Your task to perform on an android device: empty trash in the gmail app Image 0: 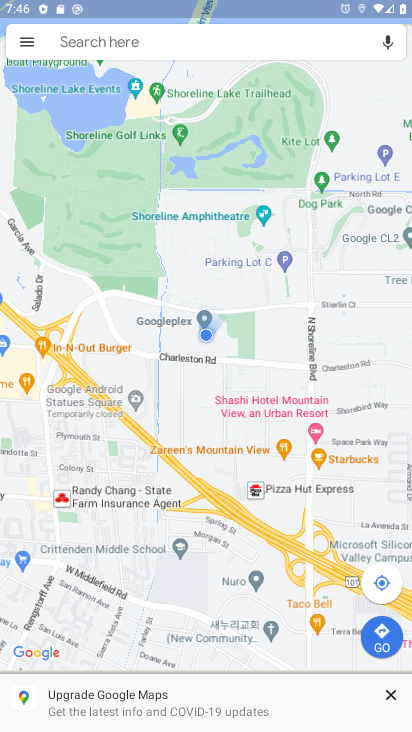
Step 0: press home button
Your task to perform on an android device: empty trash in the gmail app Image 1: 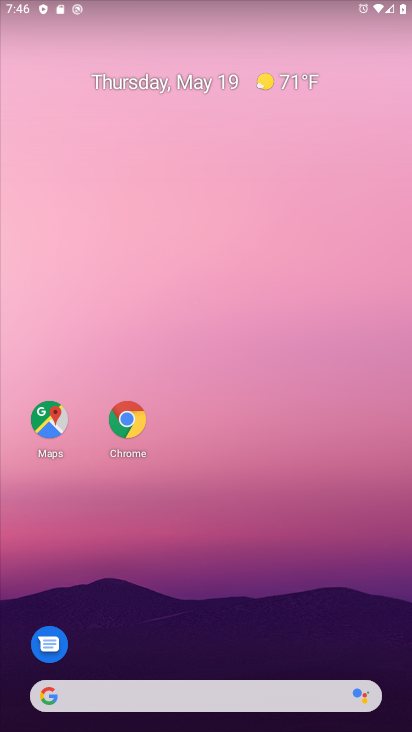
Step 1: drag from (115, 666) to (176, 321)
Your task to perform on an android device: empty trash in the gmail app Image 2: 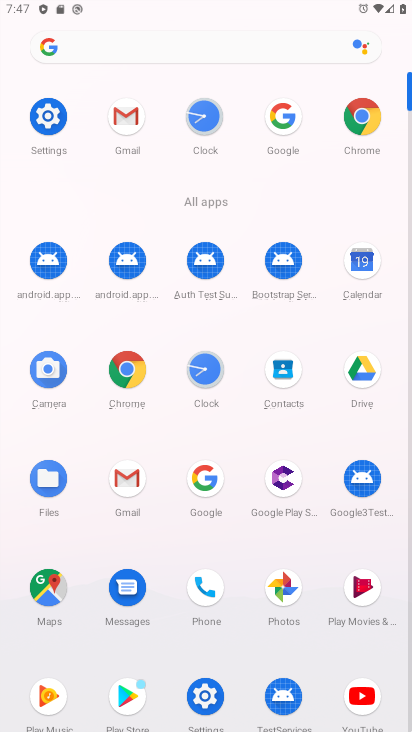
Step 2: click (125, 472)
Your task to perform on an android device: empty trash in the gmail app Image 3: 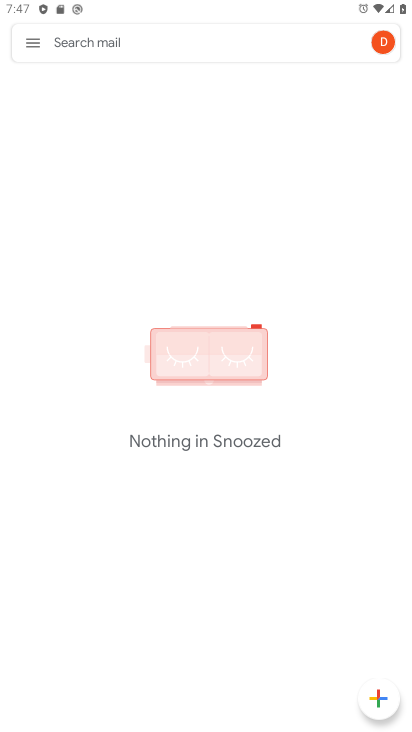
Step 3: click (27, 60)
Your task to perform on an android device: empty trash in the gmail app Image 4: 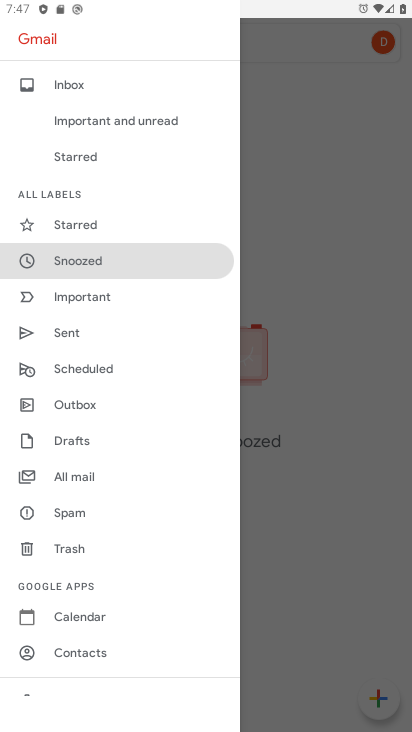
Step 4: click (67, 550)
Your task to perform on an android device: empty trash in the gmail app Image 5: 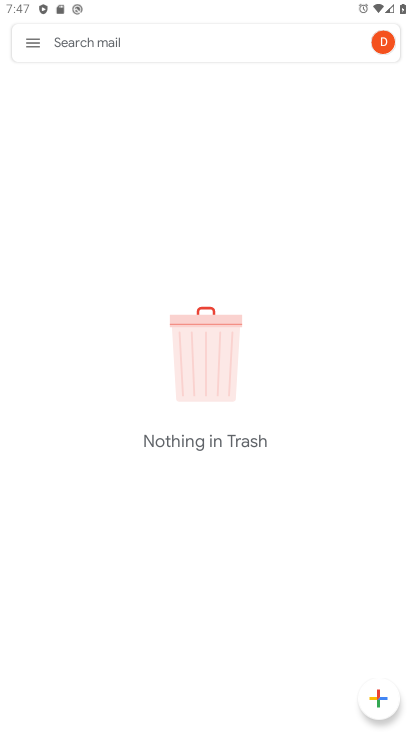
Step 5: task complete